Your task to perform on an android device: View the shopping cart on costco.com. Search for duracell triple a on costco.com, select the first entry, and add it to the cart. Image 0: 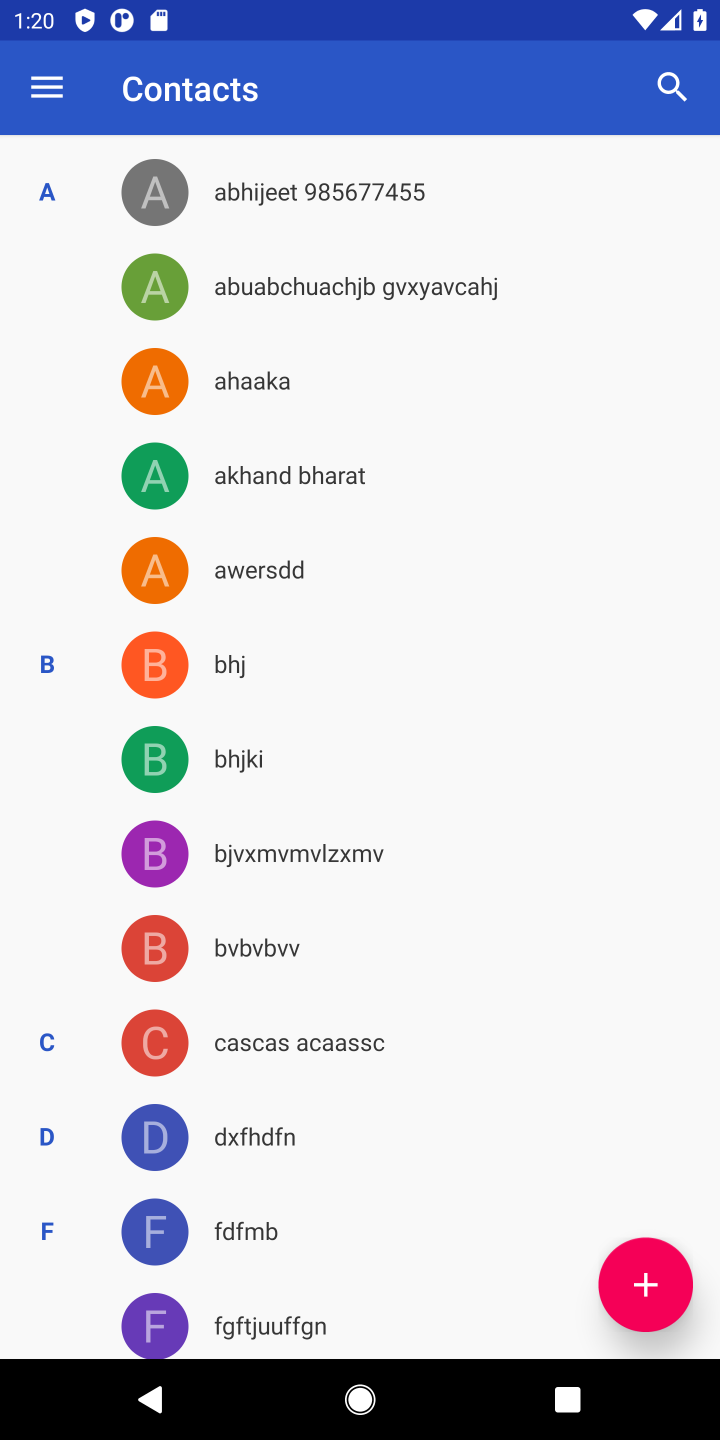
Step 0: press home button
Your task to perform on an android device: View the shopping cart on costco.com. Search for duracell triple a on costco.com, select the first entry, and add it to the cart. Image 1: 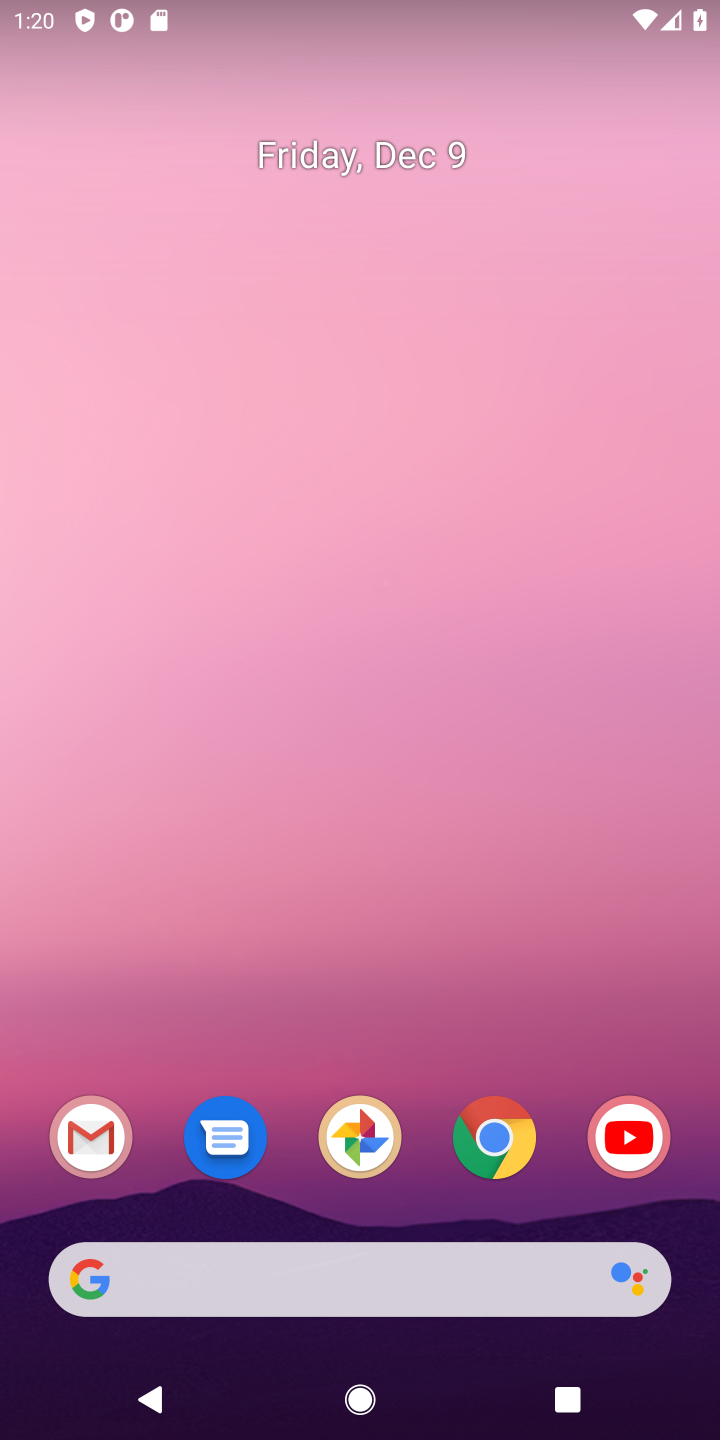
Step 1: click (497, 1161)
Your task to perform on an android device: View the shopping cart on costco.com. Search for duracell triple a on costco.com, select the first entry, and add it to the cart. Image 2: 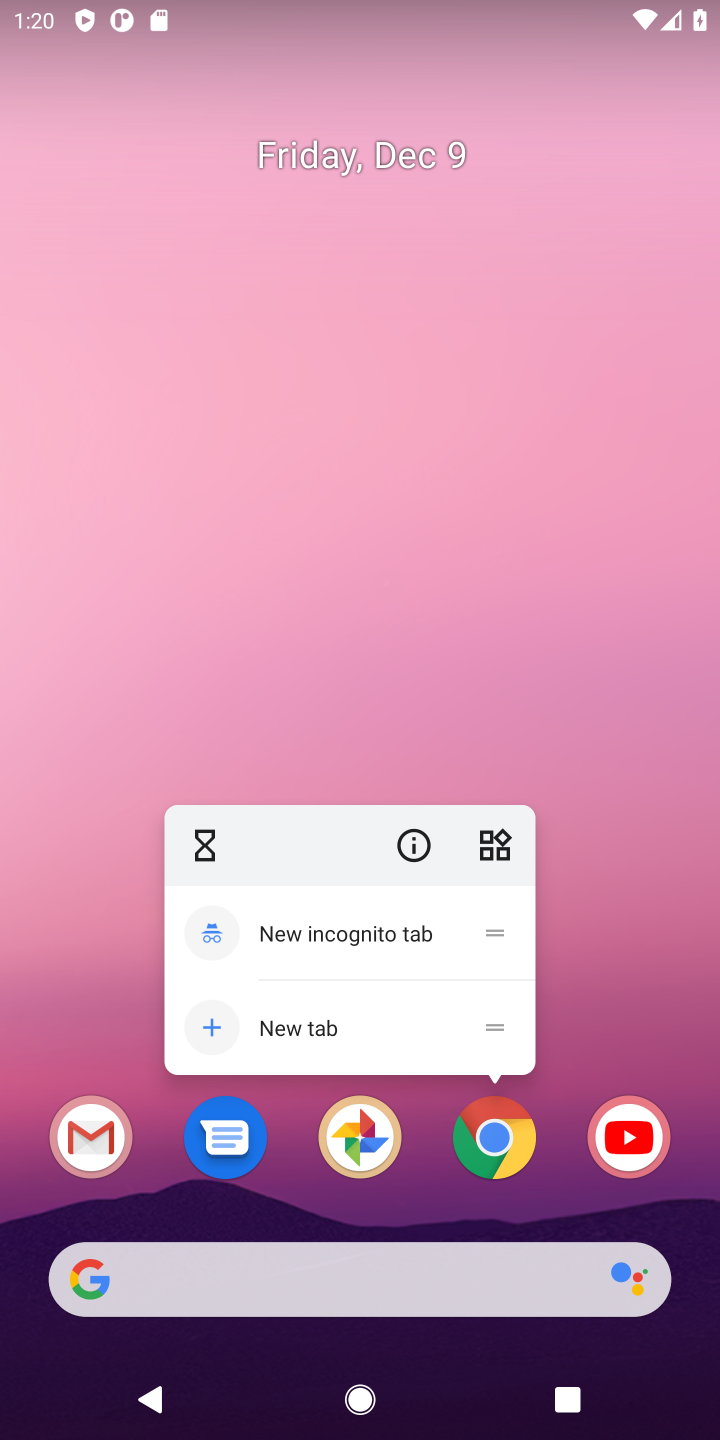
Step 2: click (490, 1104)
Your task to perform on an android device: View the shopping cart on costco.com. Search for duracell triple a on costco.com, select the first entry, and add it to the cart. Image 3: 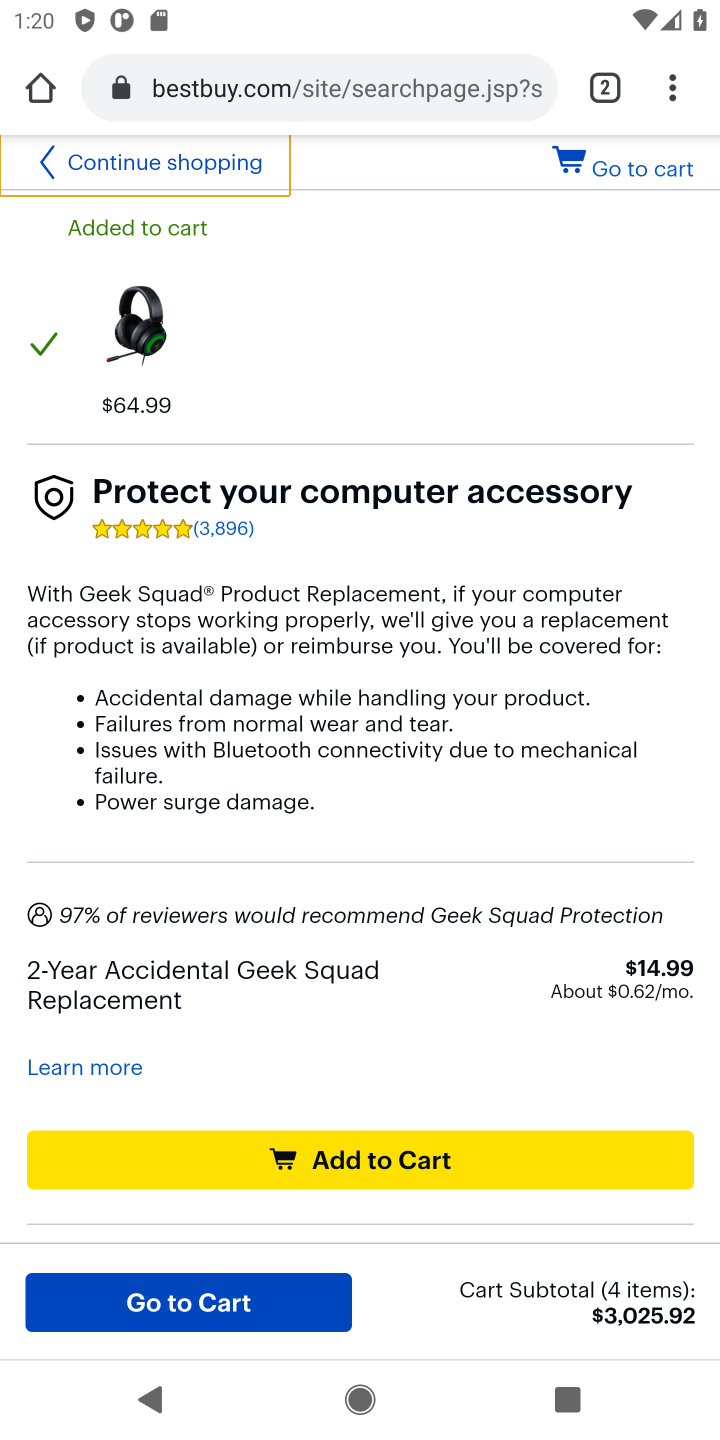
Step 3: click (312, 87)
Your task to perform on an android device: View the shopping cart on costco.com. Search for duracell triple a on costco.com, select the first entry, and add it to the cart. Image 4: 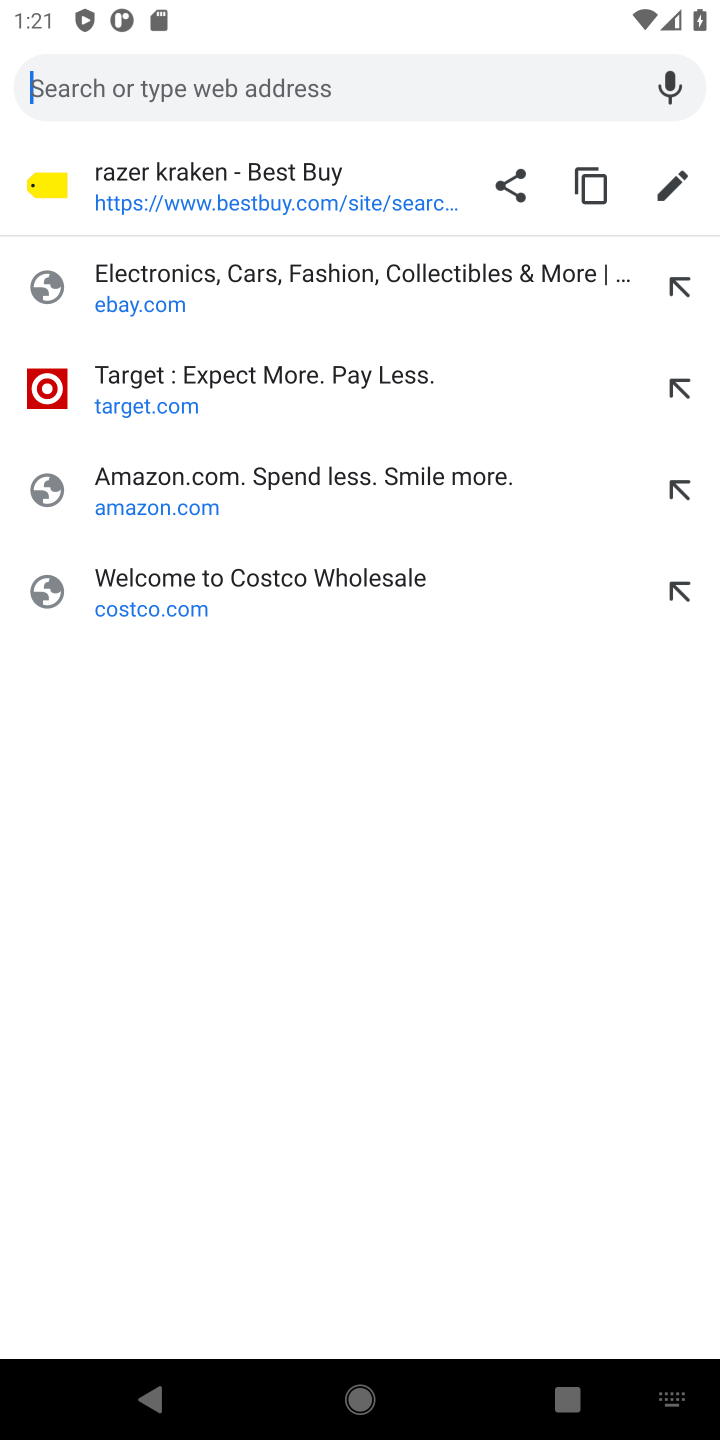
Step 4: click (180, 586)
Your task to perform on an android device: View the shopping cart on costco.com. Search for duracell triple a on costco.com, select the first entry, and add it to the cart. Image 5: 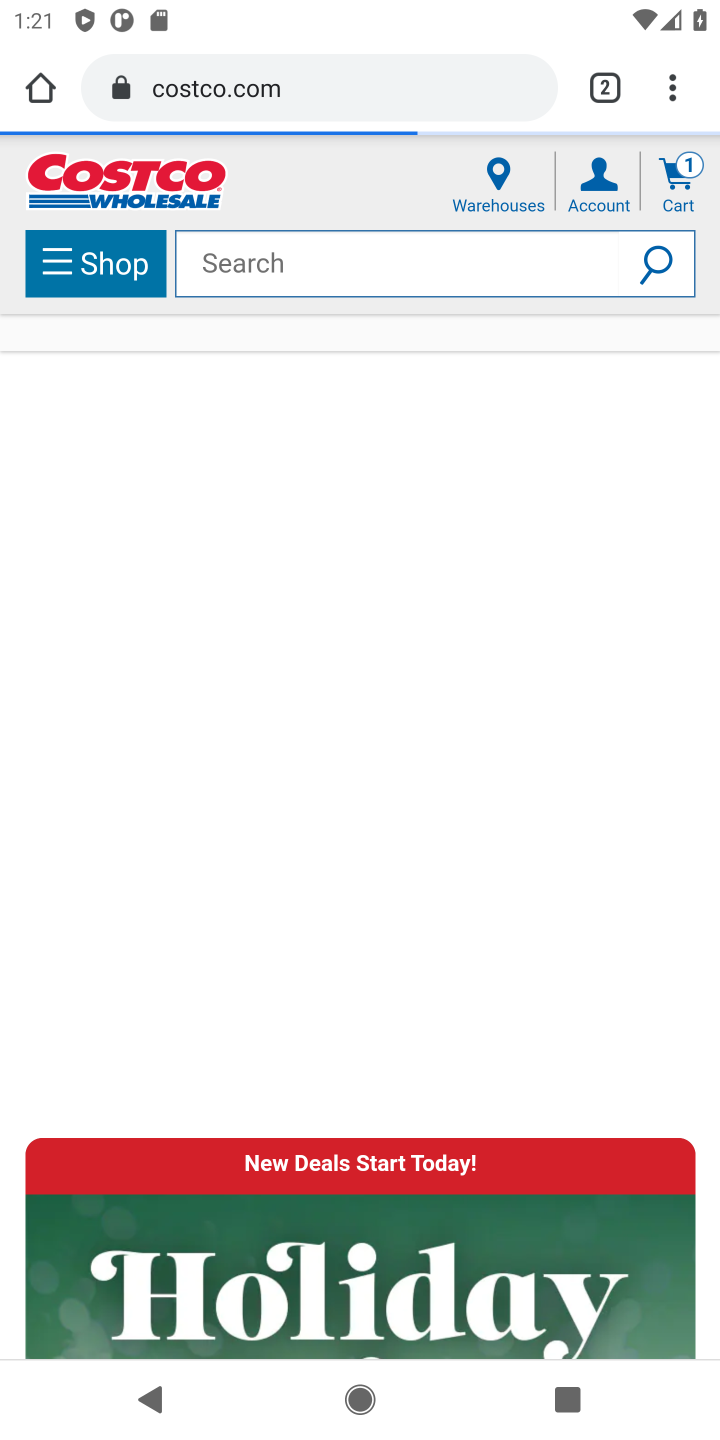
Step 5: click (375, 257)
Your task to perform on an android device: View the shopping cart on costco.com. Search for duracell triple a on costco.com, select the first entry, and add it to the cart. Image 6: 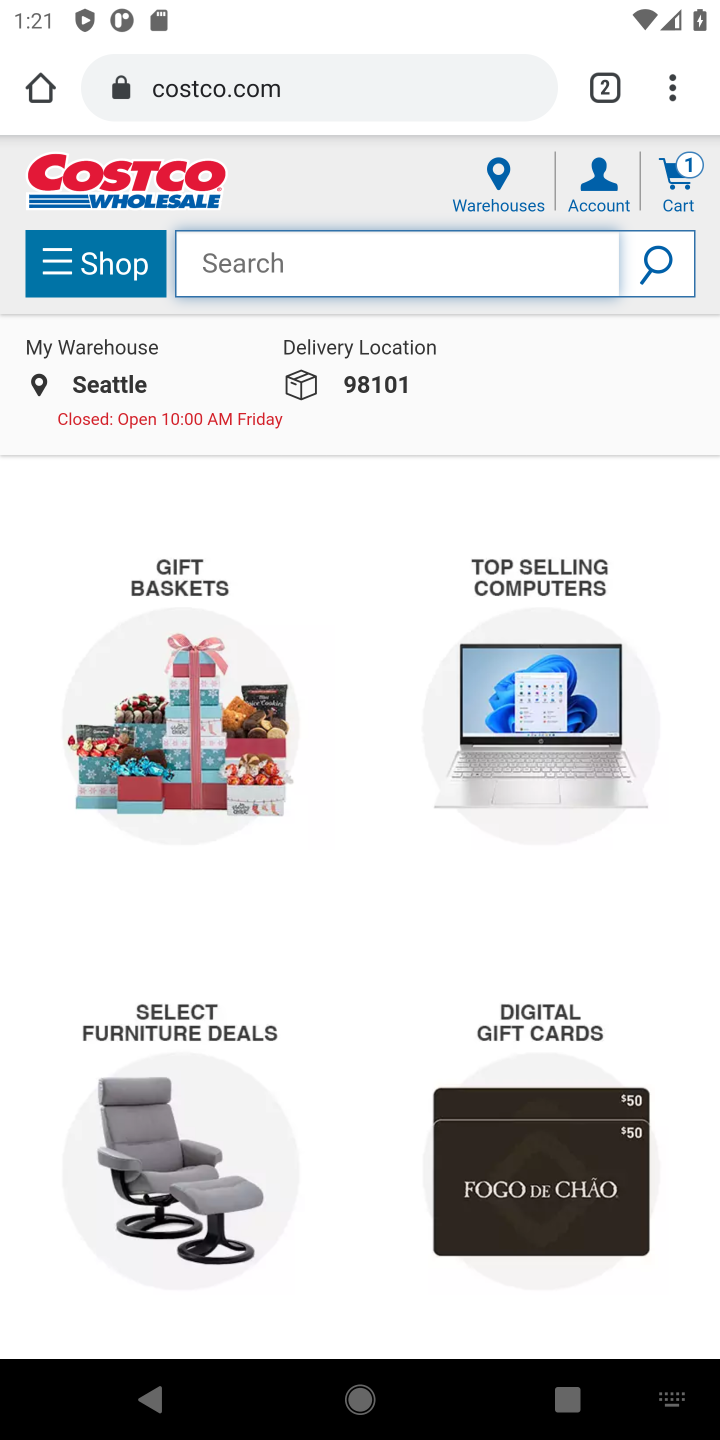
Step 6: type "DURACELL TRIPLE A"
Your task to perform on an android device: View the shopping cart on costco.com. Search for duracell triple a on costco.com, select the first entry, and add it to the cart. Image 7: 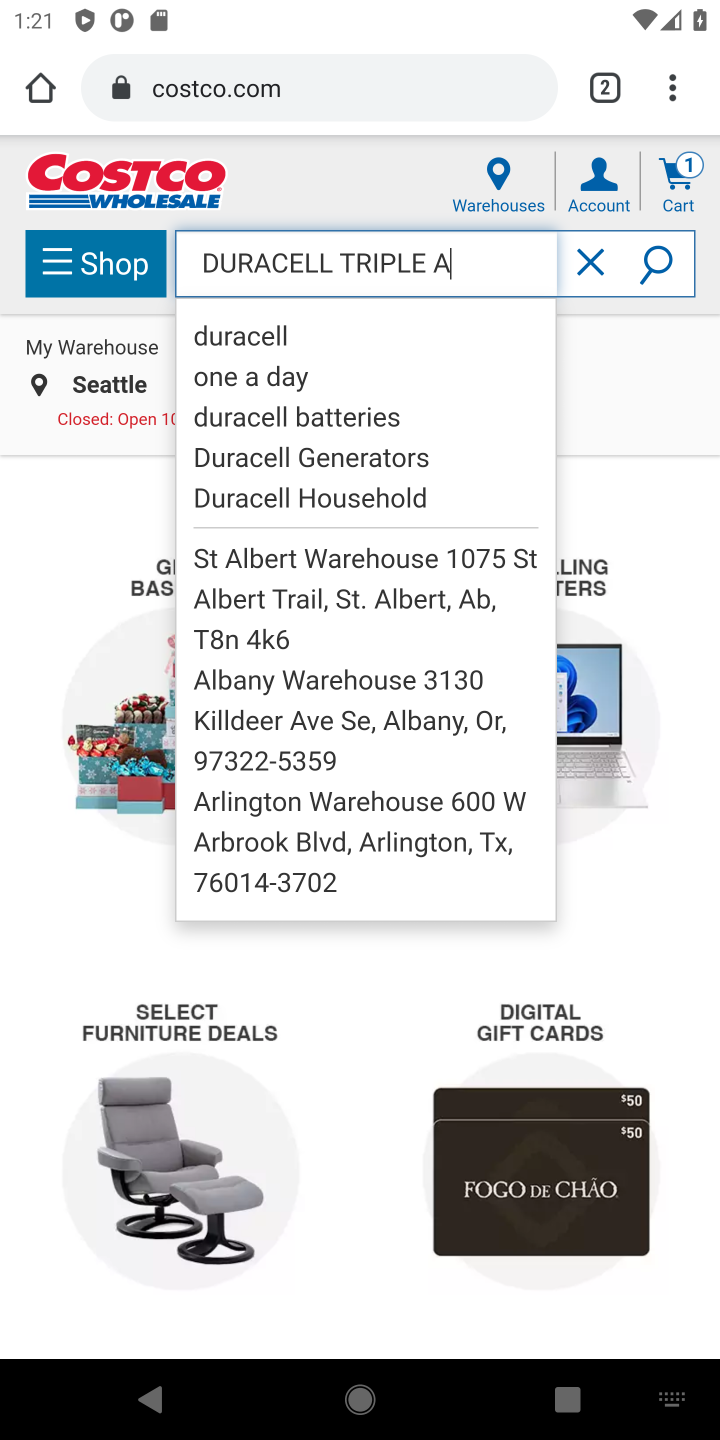
Step 7: click (284, 346)
Your task to perform on an android device: View the shopping cart on costco.com. Search for duracell triple a on costco.com, select the first entry, and add it to the cart. Image 8: 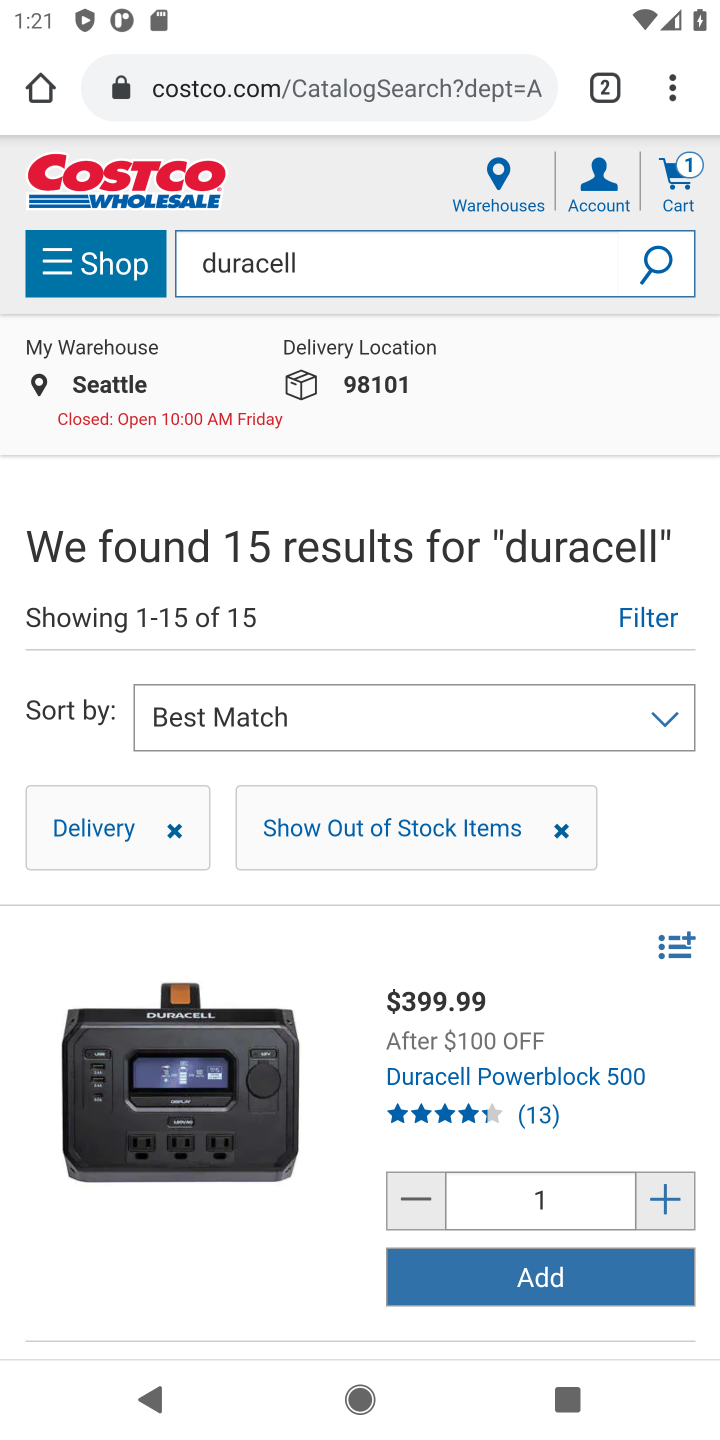
Step 8: click (491, 1272)
Your task to perform on an android device: View the shopping cart on costco.com. Search for duracell triple a on costco.com, select the first entry, and add it to the cart. Image 9: 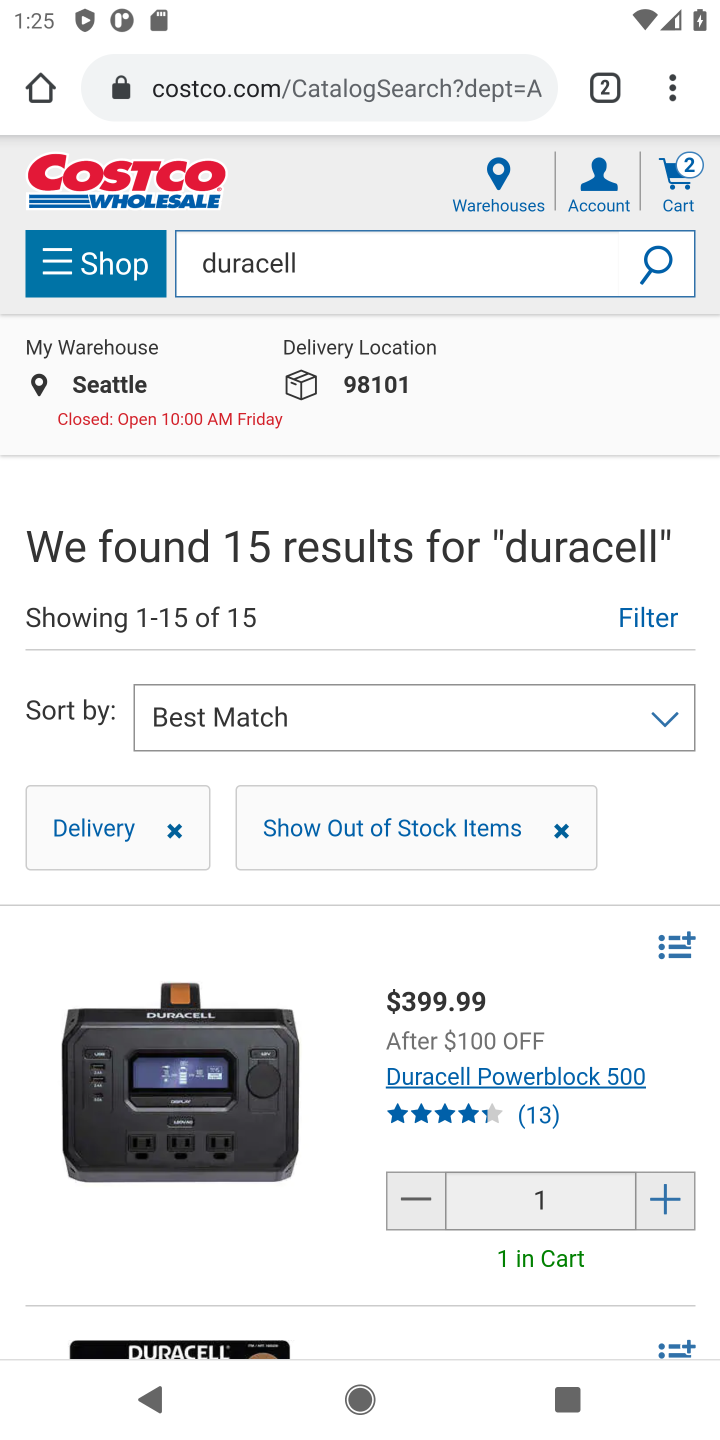
Step 9: task complete